Your task to perform on an android device: What's the weather today? Image 0: 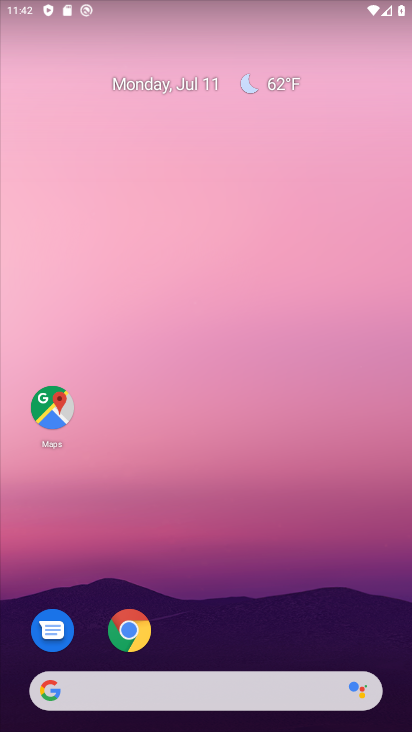
Step 0: drag from (202, 538) to (195, 59)
Your task to perform on an android device: What's the weather today? Image 1: 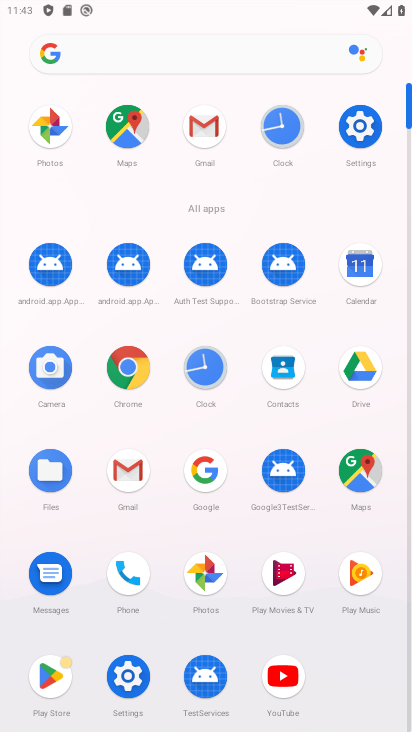
Step 1: click (205, 467)
Your task to perform on an android device: What's the weather today? Image 2: 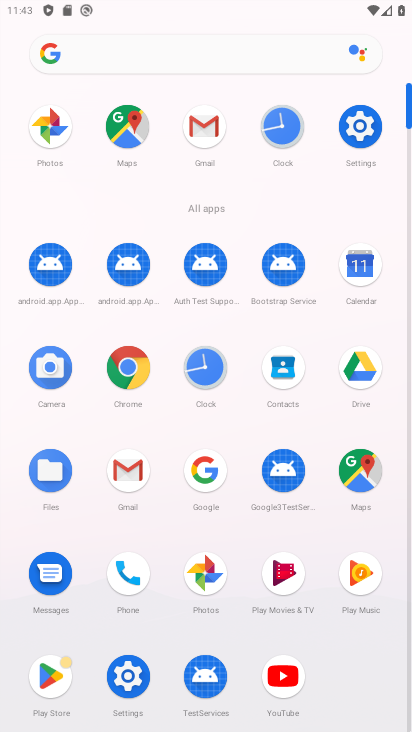
Step 2: click (208, 469)
Your task to perform on an android device: What's the weather today? Image 3: 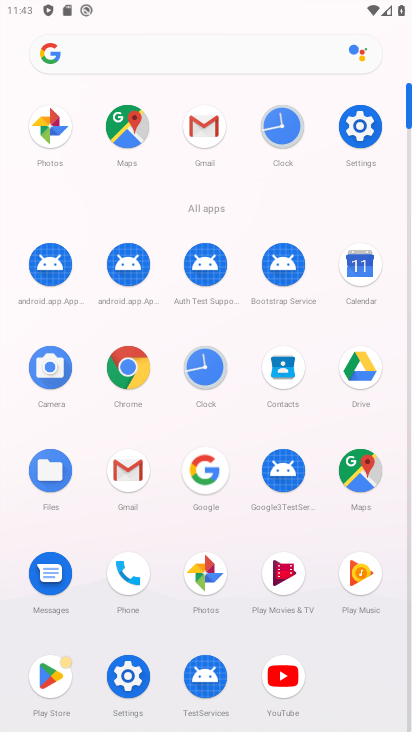
Step 3: click (208, 469)
Your task to perform on an android device: What's the weather today? Image 4: 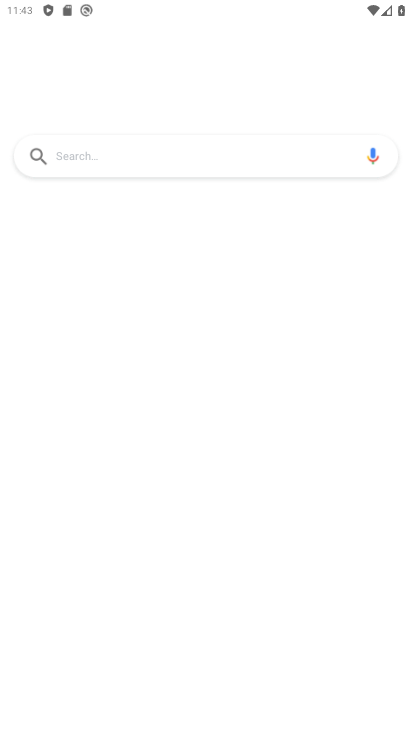
Step 4: click (113, 158)
Your task to perform on an android device: What's the weather today? Image 5: 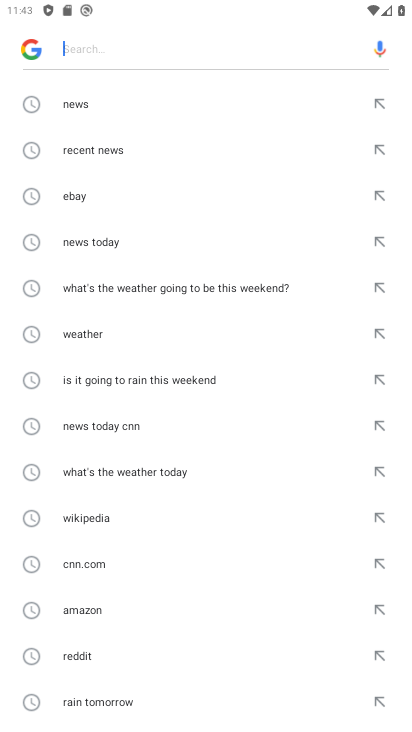
Step 5: click (138, 53)
Your task to perform on an android device: What's the weather today? Image 6: 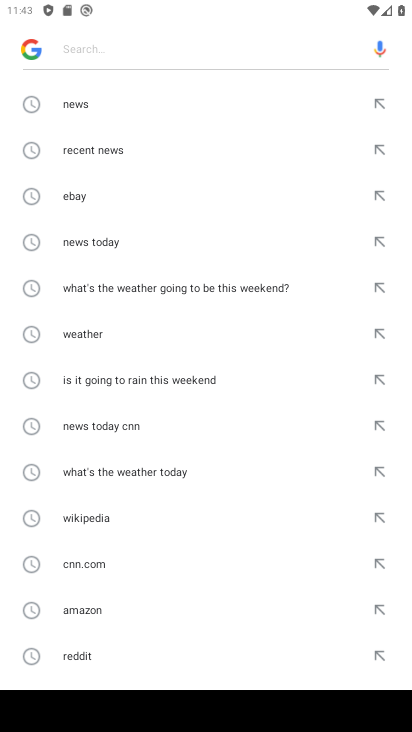
Step 6: click (156, 474)
Your task to perform on an android device: What's the weather today? Image 7: 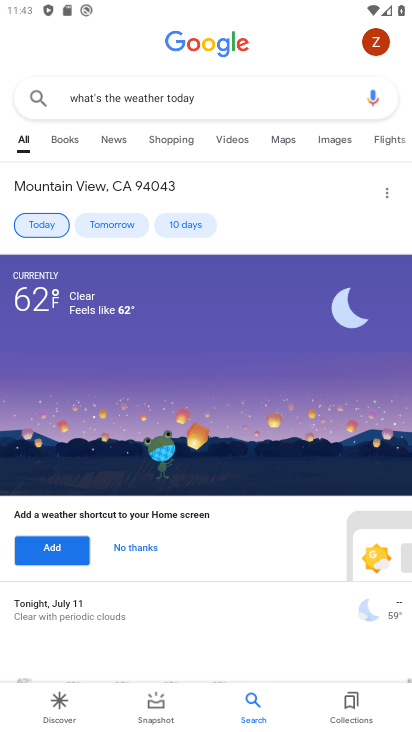
Step 7: task complete